Your task to perform on an android device: check storage Image 0: 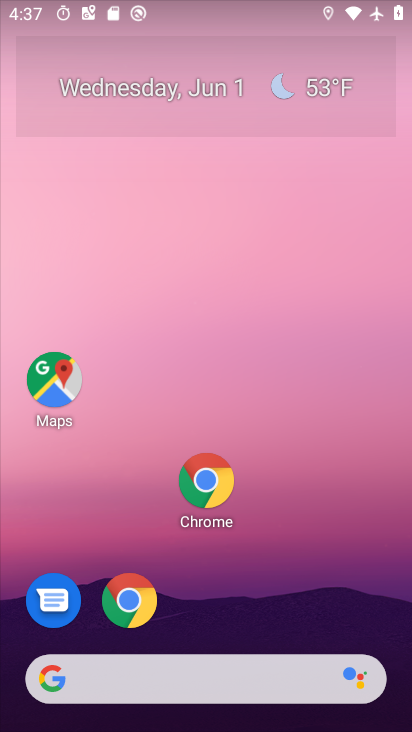
Step 0: drag from (283, 711) to (198, 203)
Your task to perform on an android device: check storage Image 1: 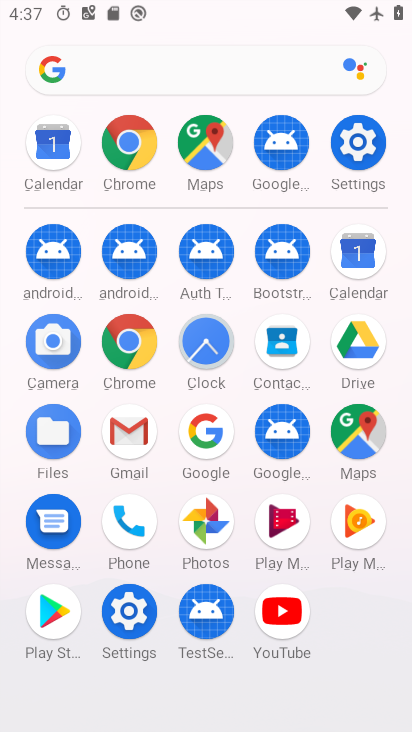
Step 1: click (120, 609)
Your task to perform on an android device: check storage Image 2: 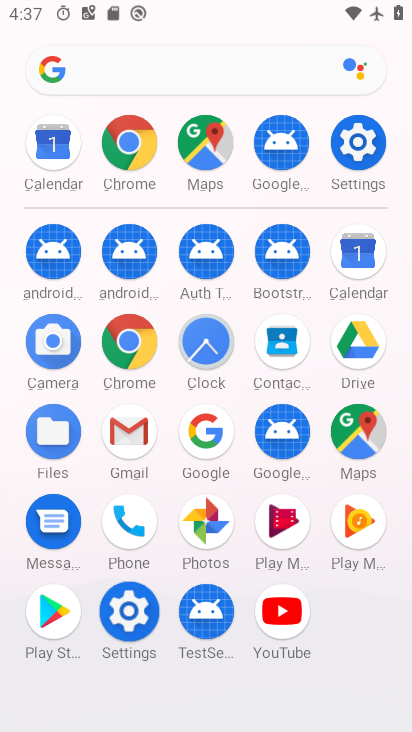
Step 2: click (124, 609)
Your task to perform on an android device: check storage Image 3: 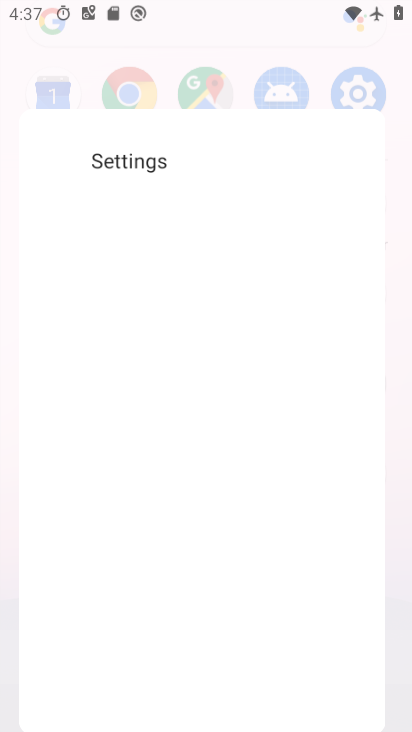
Step 3: click (124, 609)
Your task to perform on an android device: check storage Image 4: 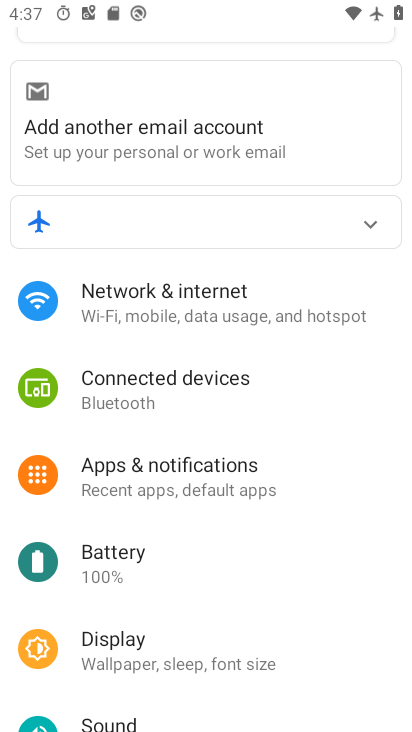
Step 4: drag from (163, 534) to (142, 315)
Your task to perform on an android device: check storage Image 5: 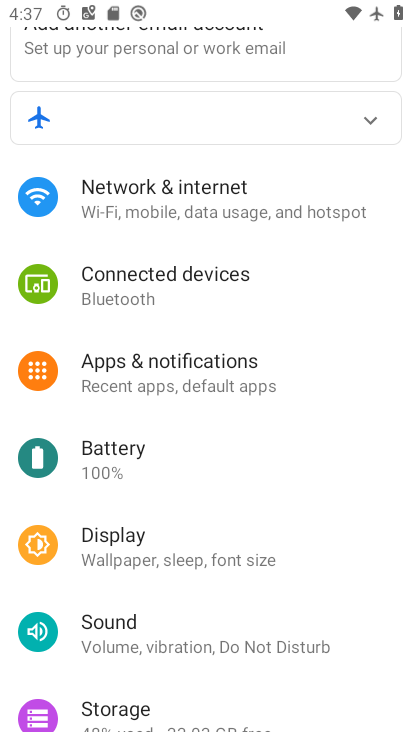
Step 5: drag from (182, 468) to (163, 259)
Your task to perform on an android device: check storage Image 6: 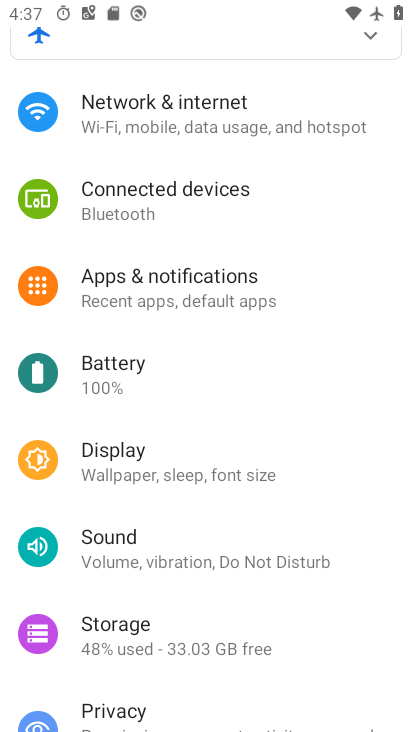
Step 6: drag from (179, 516) to (126, 178)
Your task to perform on an android device: check storage Image 7: 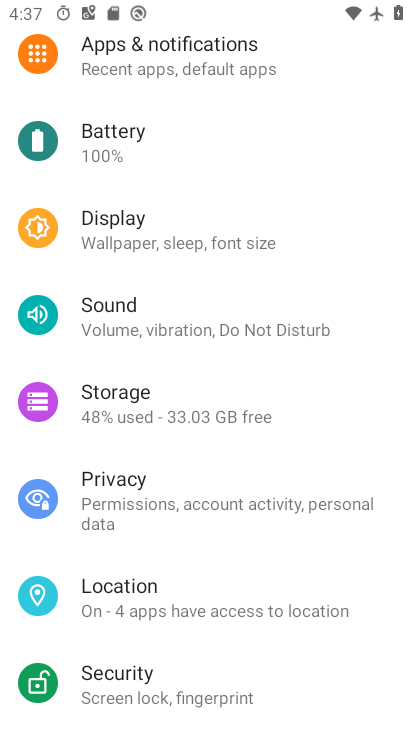
Step 7: click (109, 403)
Your task to perform on an android device: check storage Image 8: 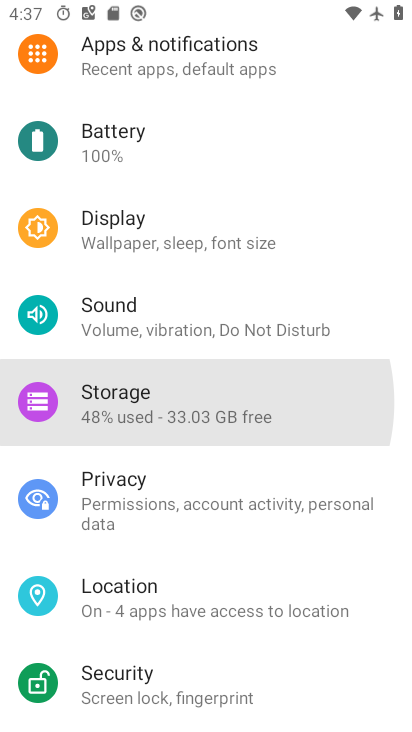
Step 8: click (110, 402)
Your task to perform on an android device: check storage Image 9: 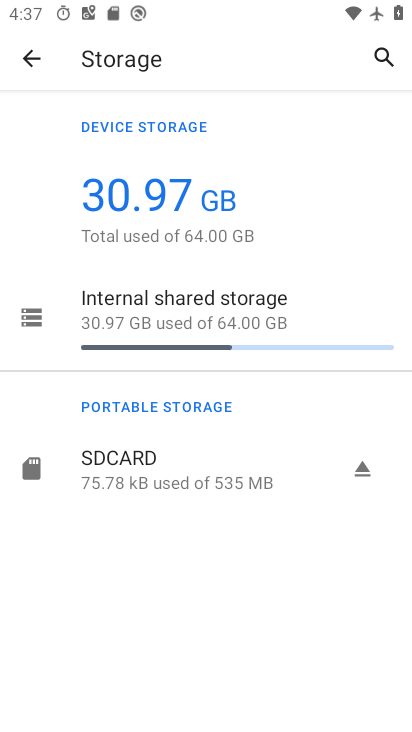
Step 9: click (111, 403)
Your task to perform on an android device: check storage Image 10: 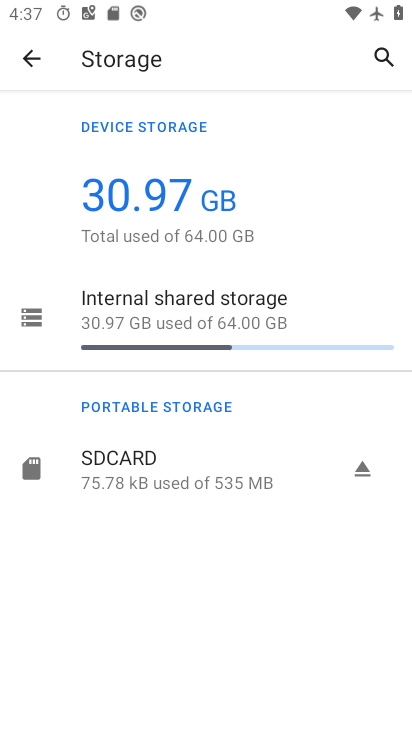
Step 10: task complete